Your task to perform on an android device: Show me recent news Image 0: 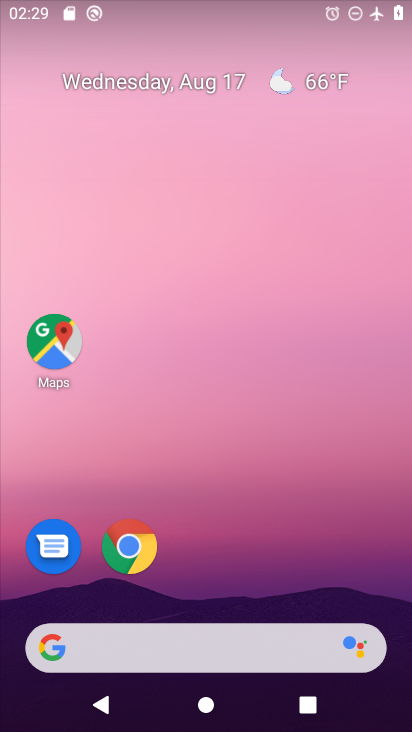
Step 0: click (239, 642)
Your task to perform on an android device: Show me recent news Image 1: 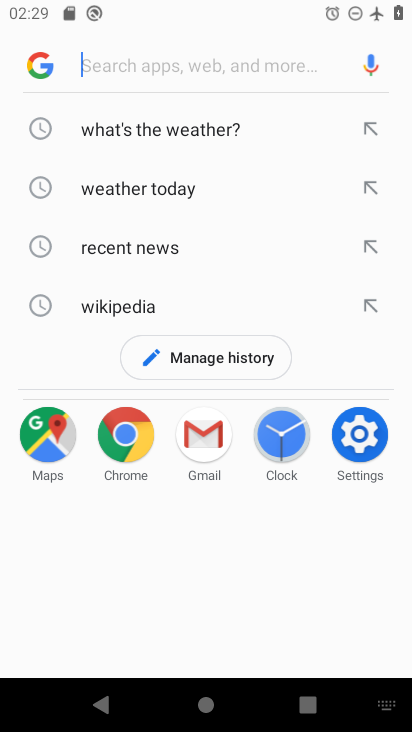
Step 1: click (136, 241)
Your task to perform on an android device: Show me recent news Image 2: 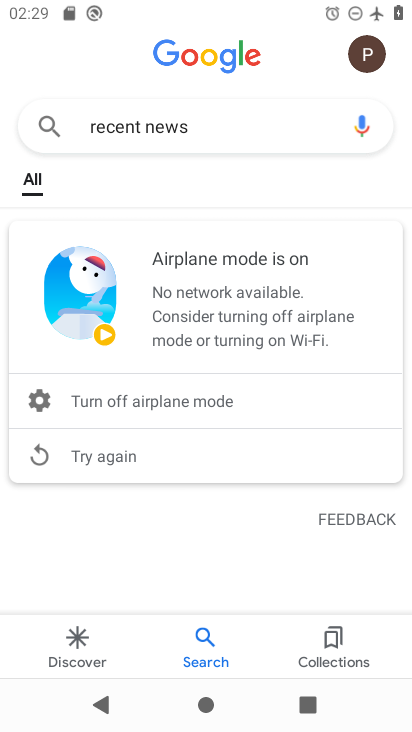
Step 2: task complete